Your task to perform on an android device: Add logitech g903 to the cart on amazon.com, then select checkout. Image 0: 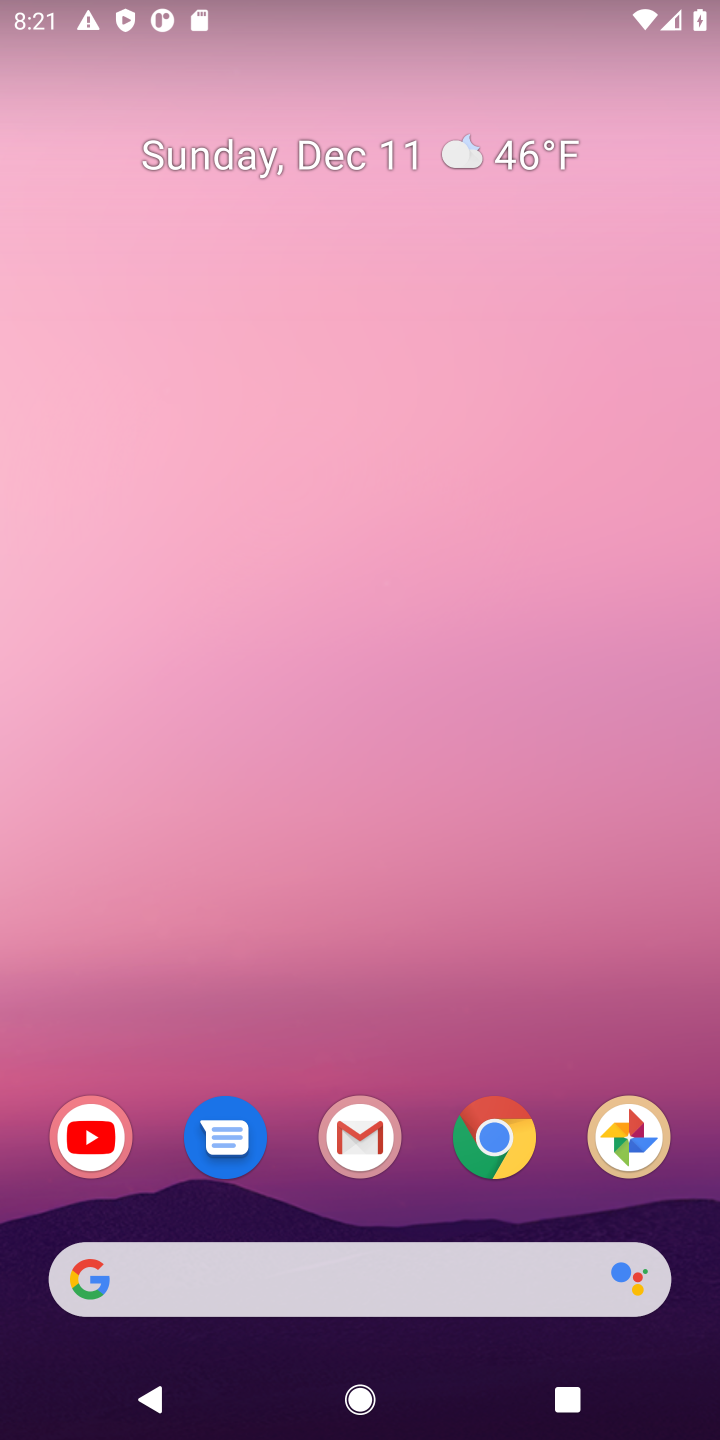
Step 0: click (476, 1147)
Your task to perform on an android device: Add logitech g903 to the cart on amazon.com, then select checkout. Image 1: 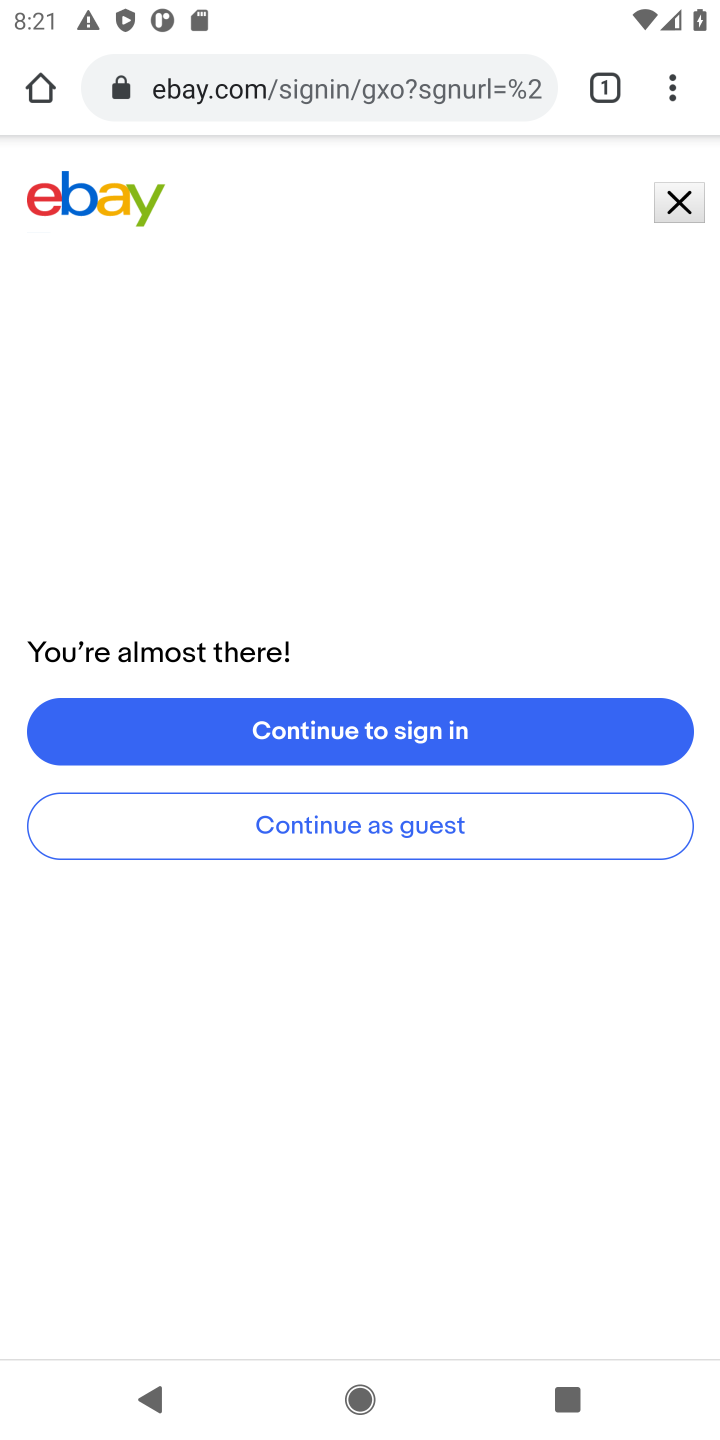
Step 1: click (308, 90)
Your task to perform on an android device: Add logitech g903 to the cart on amazon.com, then select checkout. Image 2: 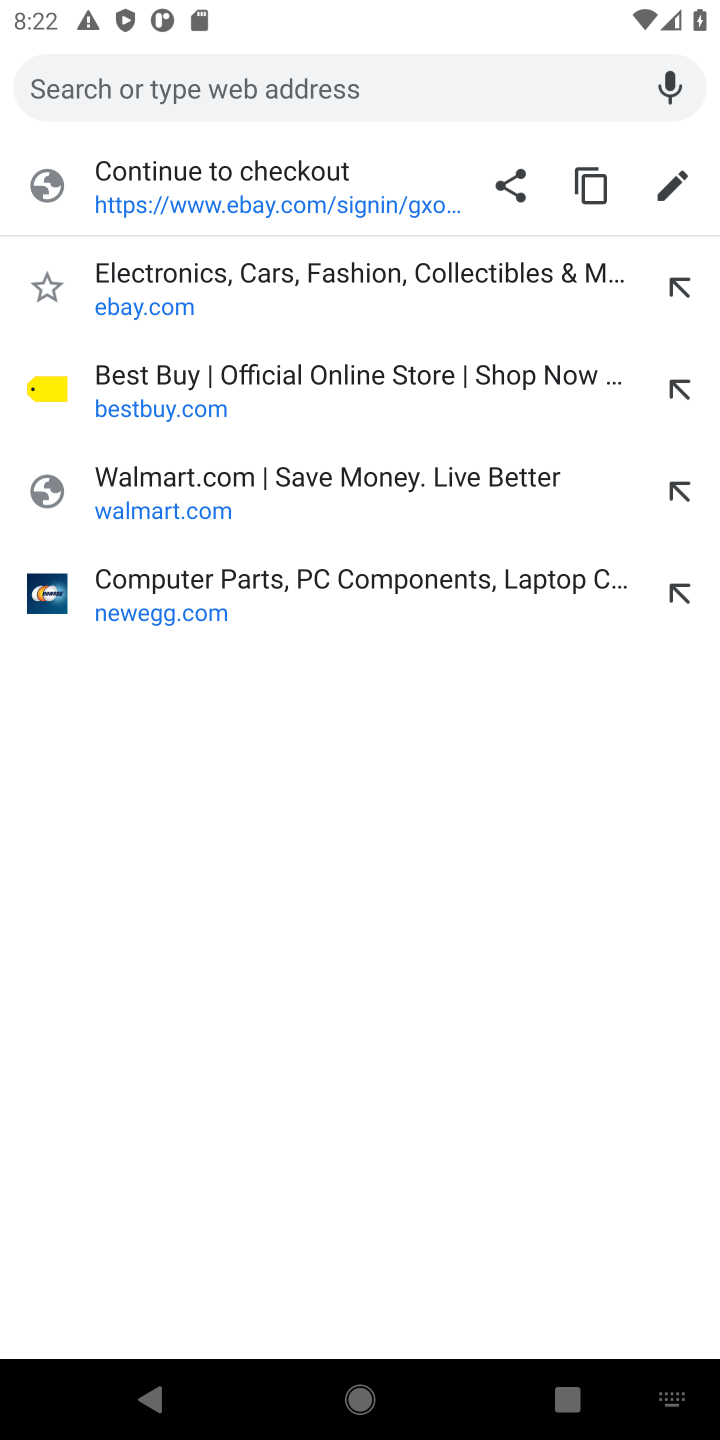
Step 2: type "AMAZON"
Your task to perform on an android device: Add logitech g903 to the cart on amazon.com, then select checkout. Image 3: 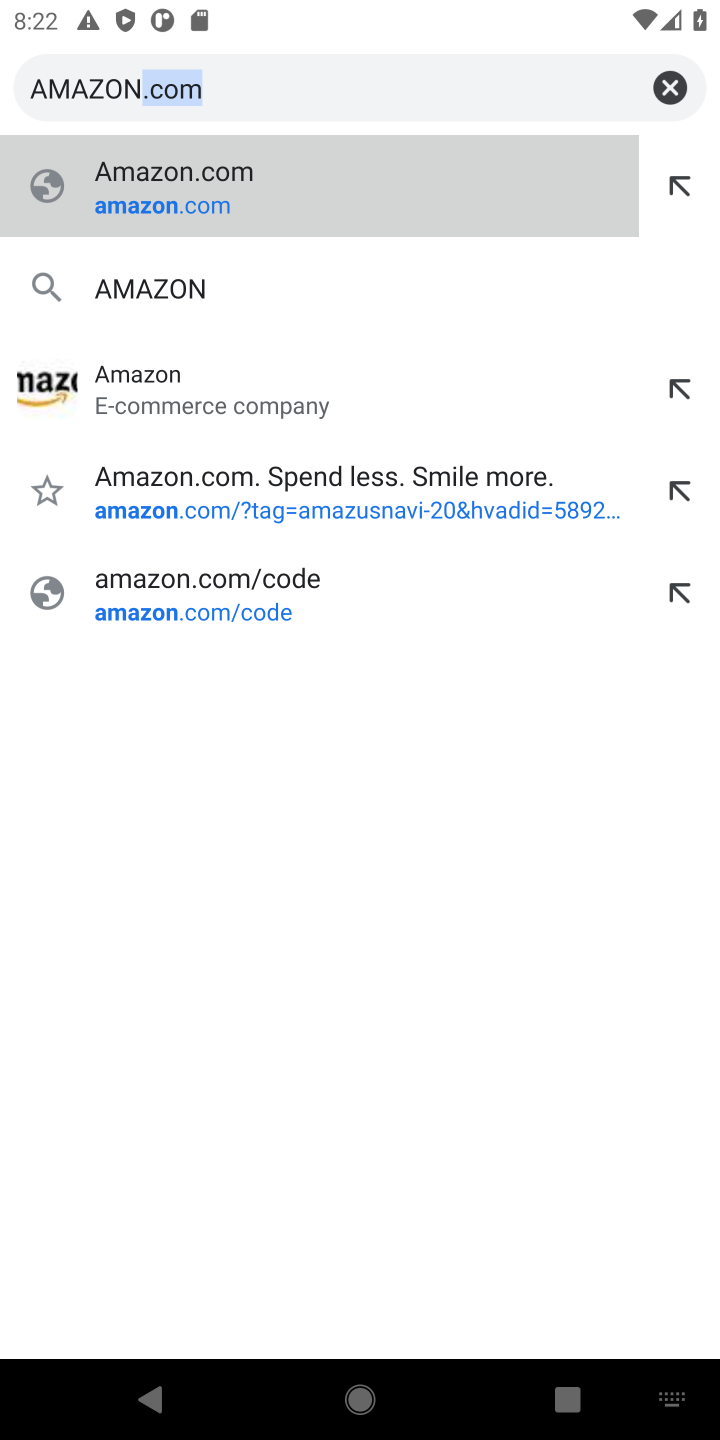
Step 3: click (190, 171)
Your task to perform on an android device: Add logitech g903 to the cart on amazon.com, then select checkout. Image 4: 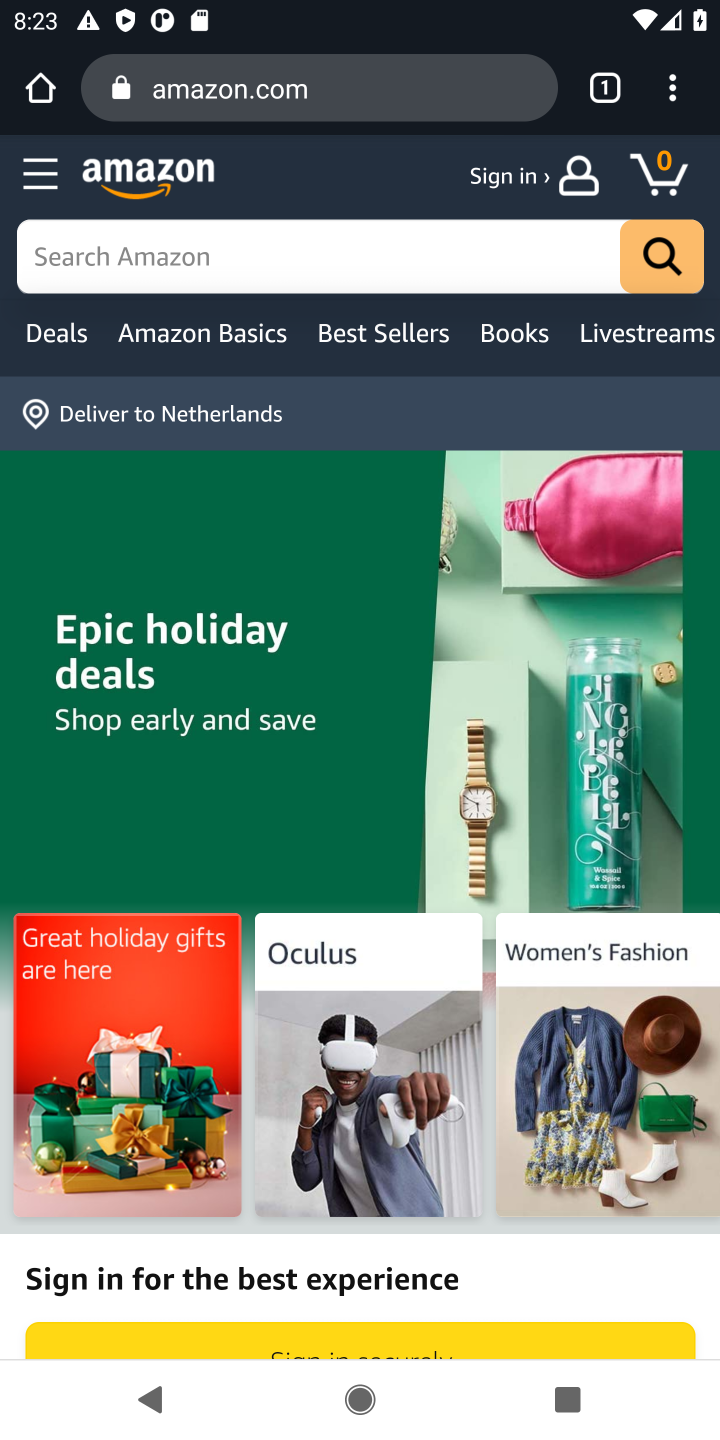
Step 4: click (358, 259)
Your task to perform on an android device: Add logitech g903 to the cart on amazon.com, then select checkout. Image 5: 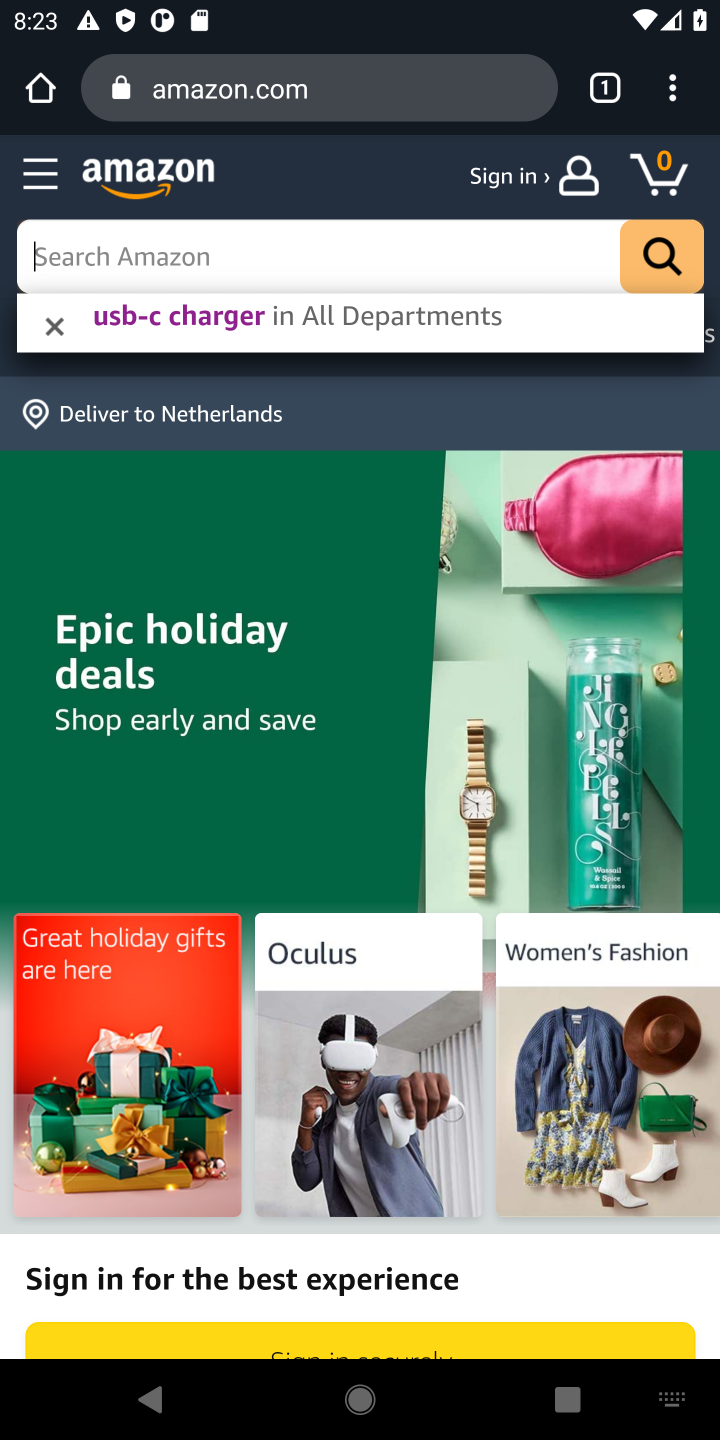
Step 5: type "logitech g903"
Your task to perform on an android device: Add logitech g903 to the cart on amazon.com, then select checkout. Image 6: 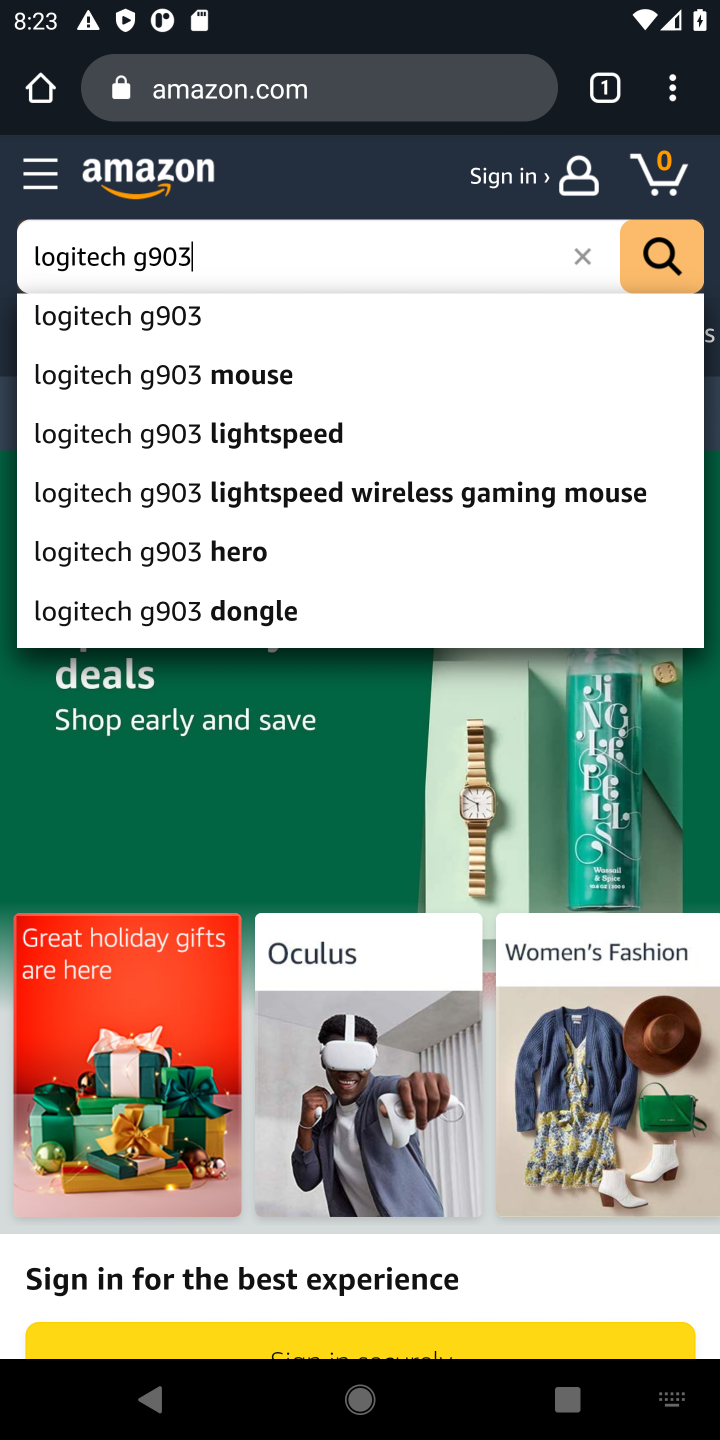
Step 6: click (147, 320)
Your task to perform on an android device: Add logitech g903 to the cart on amazon.com, then select checkout. Image 7: 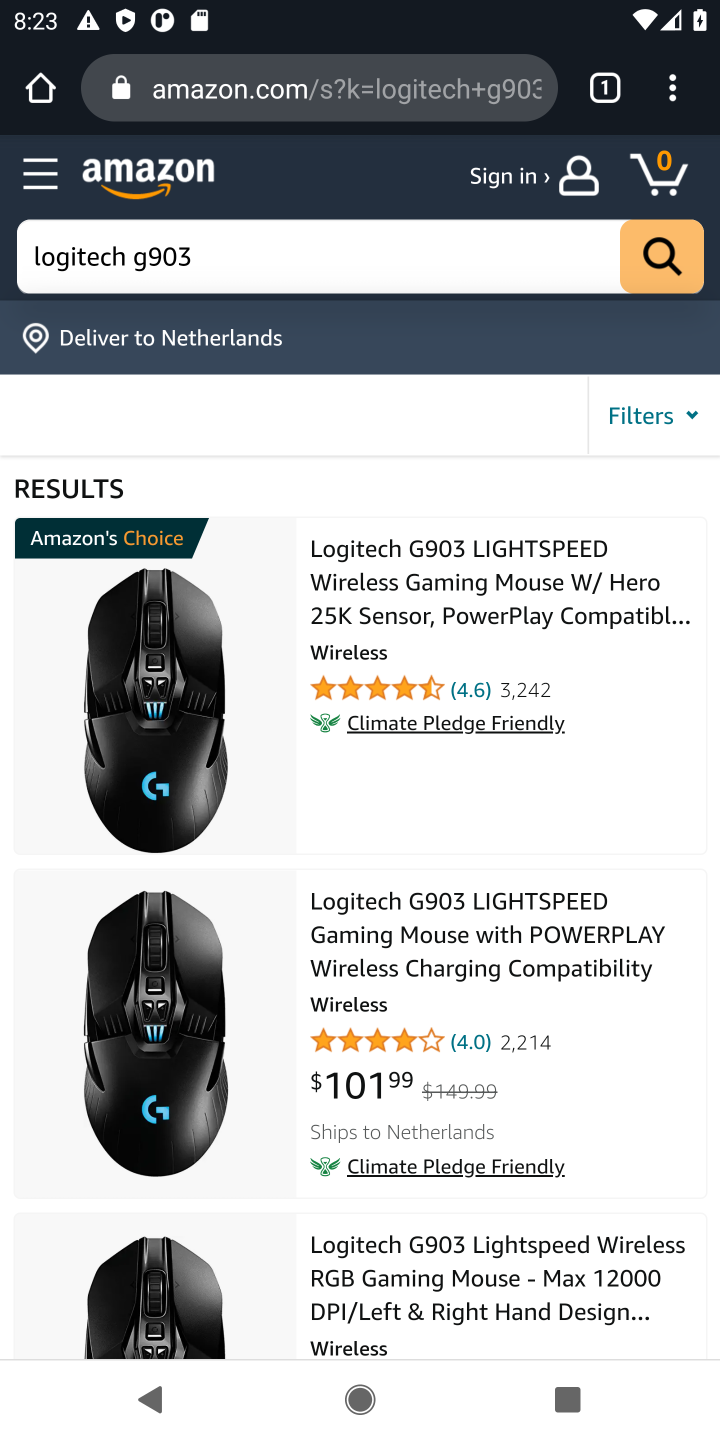
Step 7: click (638, 674)
Your task to perform on an android device: Add logitech g903 to the cart on amazon.com, then select checkout. Image 8: 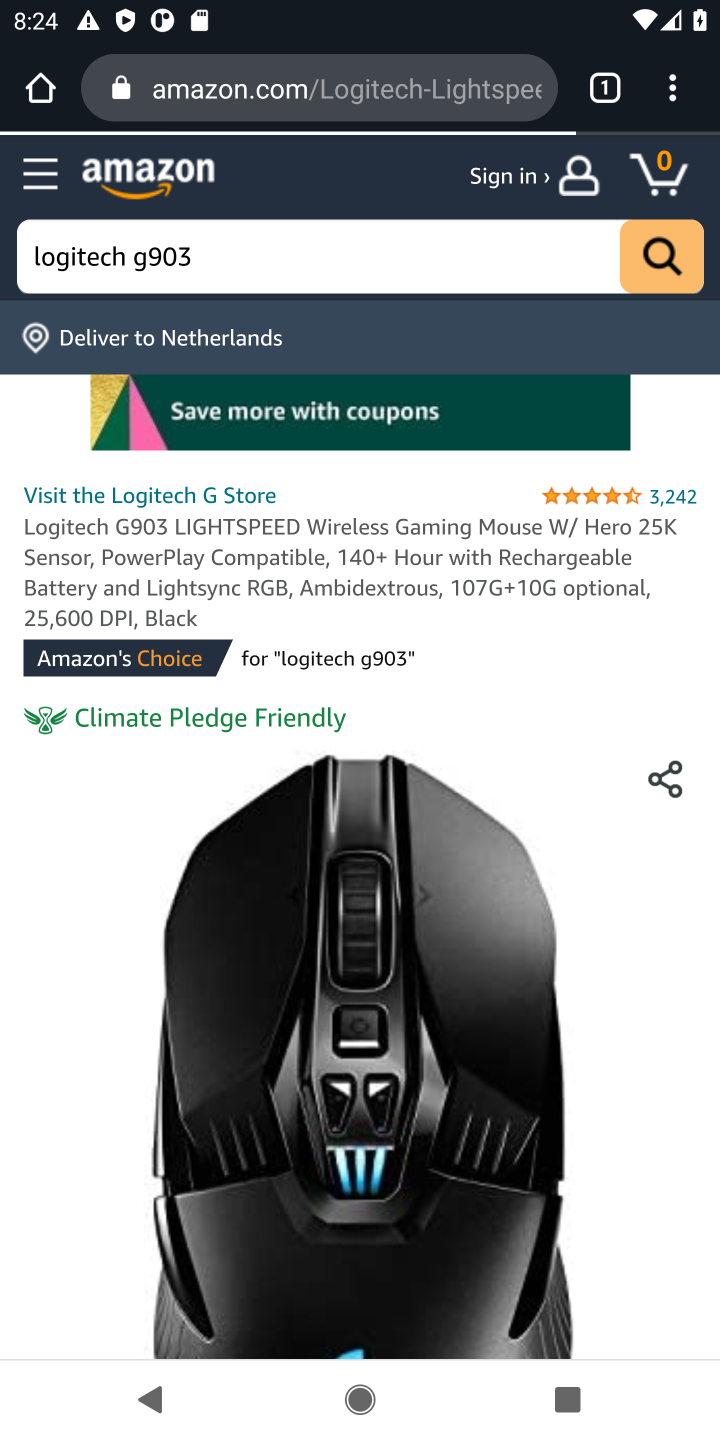
Step 8: drag from (589, 1285) to (493, 311)
Your task to perform on an android device: Add logitech g903 to the cart on amazon.com, then select checkout. Image 9: 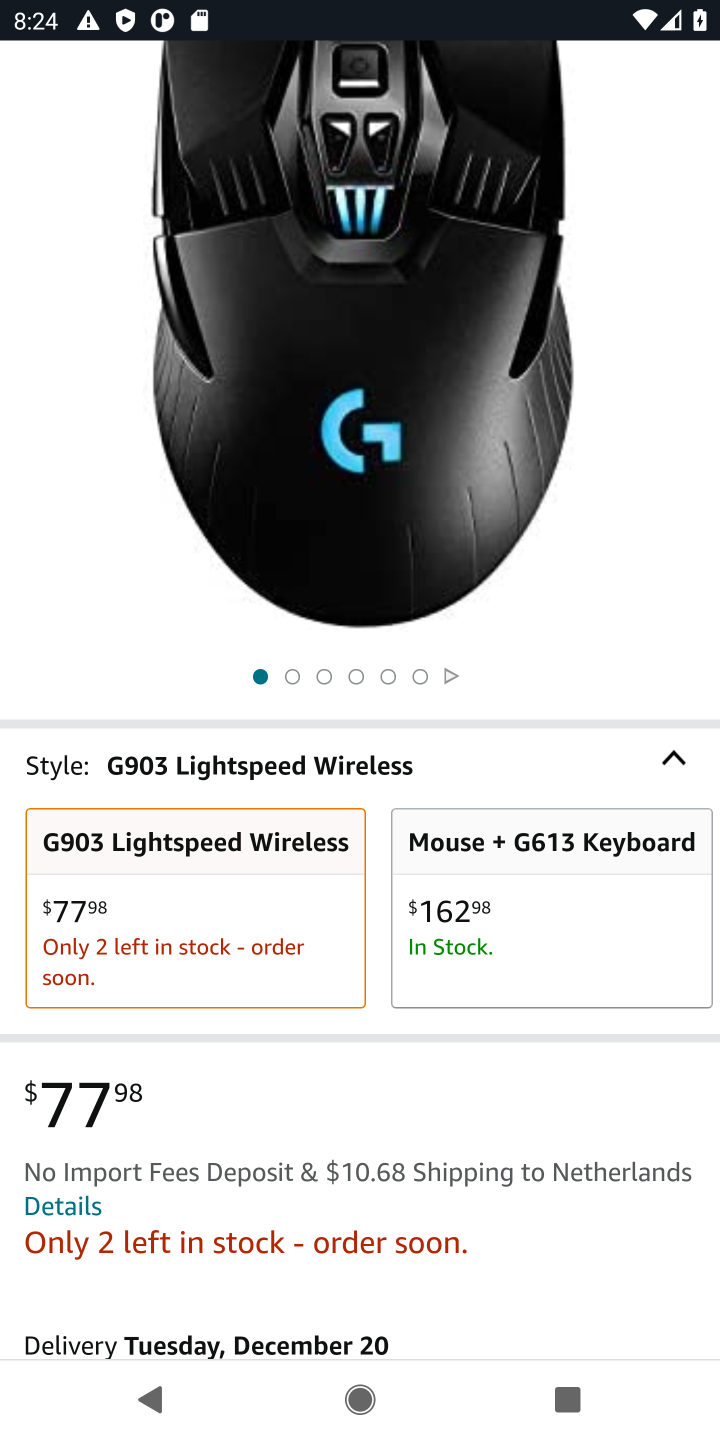
Step 9: drag from (558, 1049) to (451, 0)
Your task to perform on an android device: Add logitech g903 to the cart on amazon.com, then select checkout. Image 10: 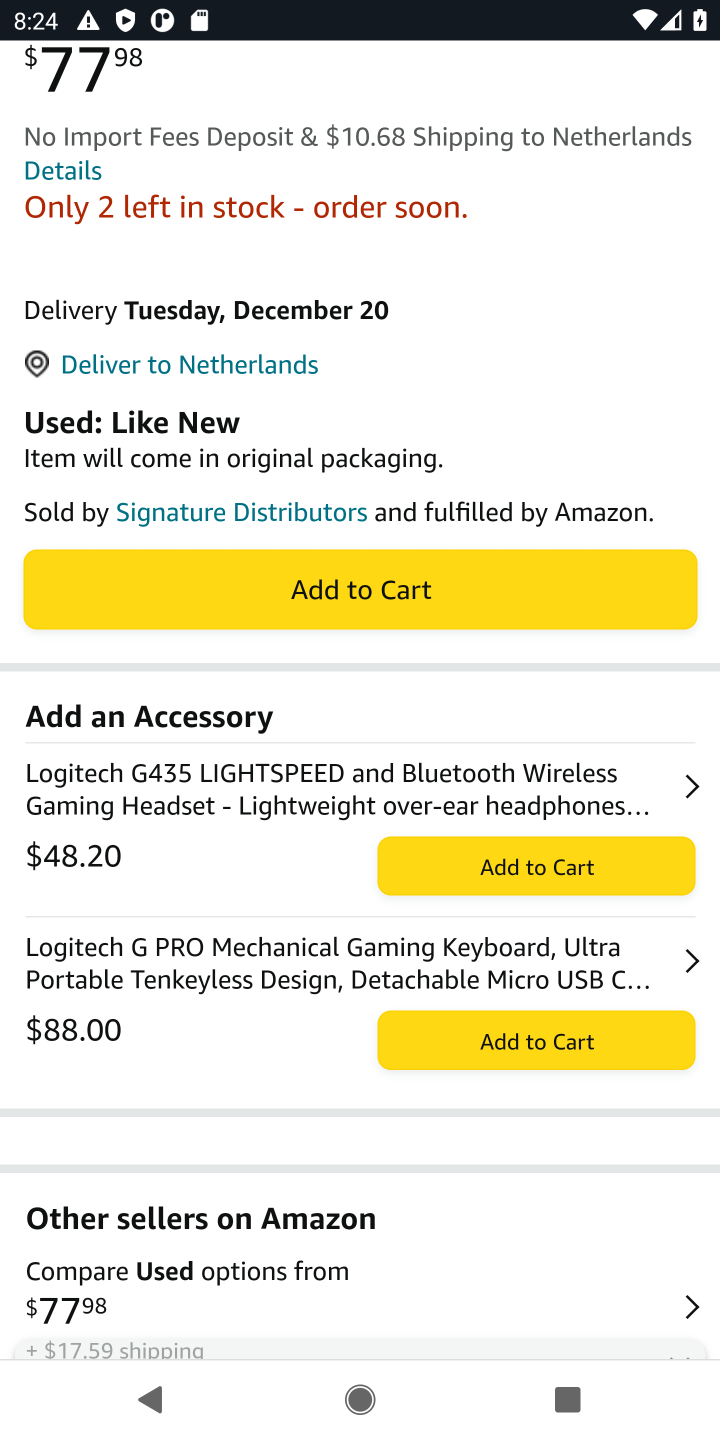
Step 10: click (399, 602)
Your task to perform on an android device: Add logitech g903 to the cart on amazon.com, then select checkout. Image 11: 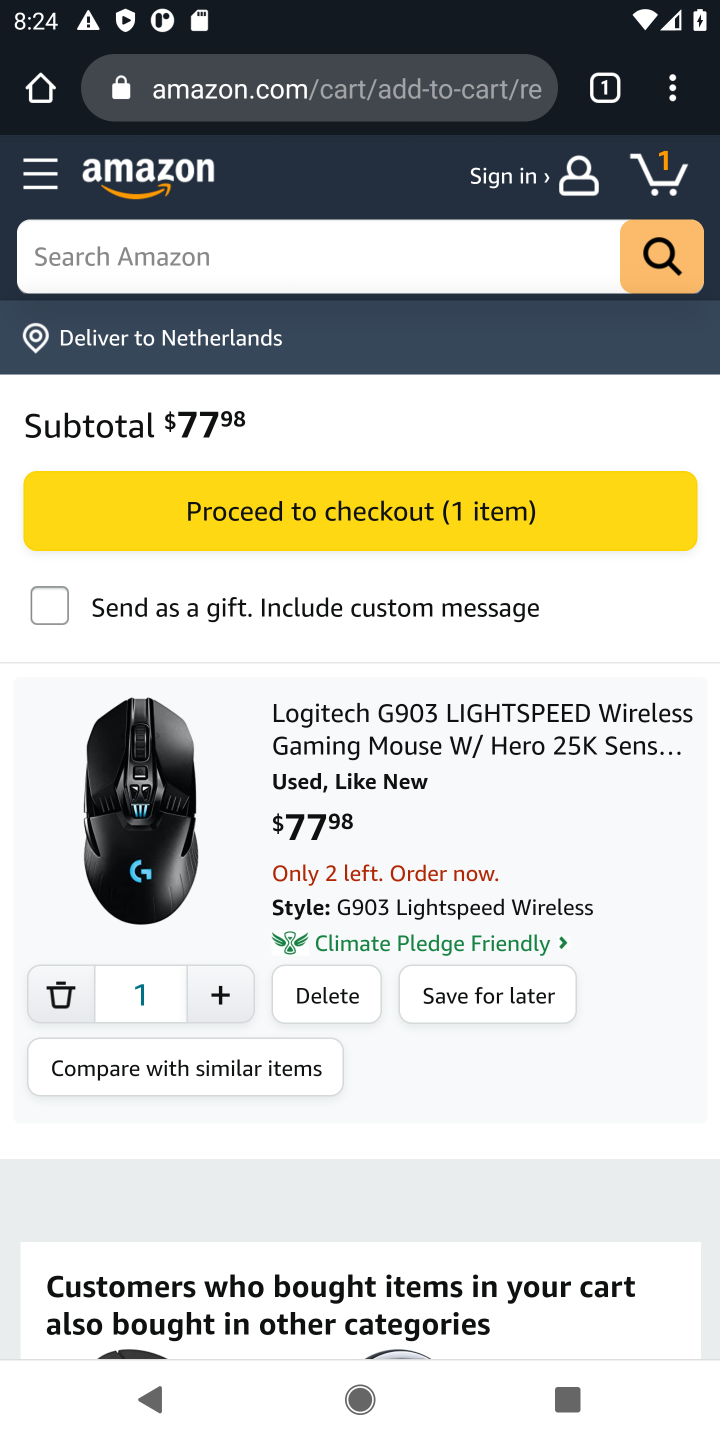
Step 11: click (419, 519)
Your task to perform on an android device: Add logitech g903 to the cart on amazon.com, then select checkout. Image 12: 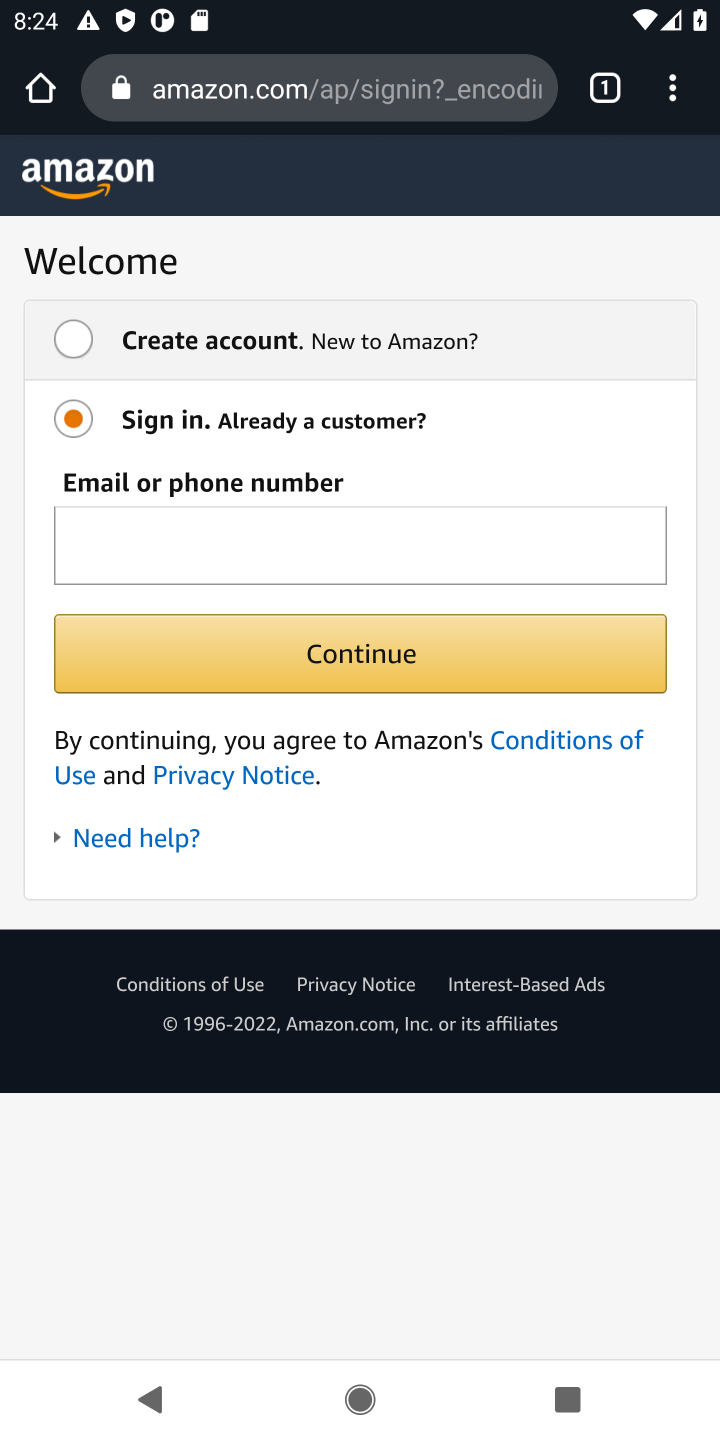
Step 12: task complete